Your task to perform on an android device: Open the web browser Image 0: 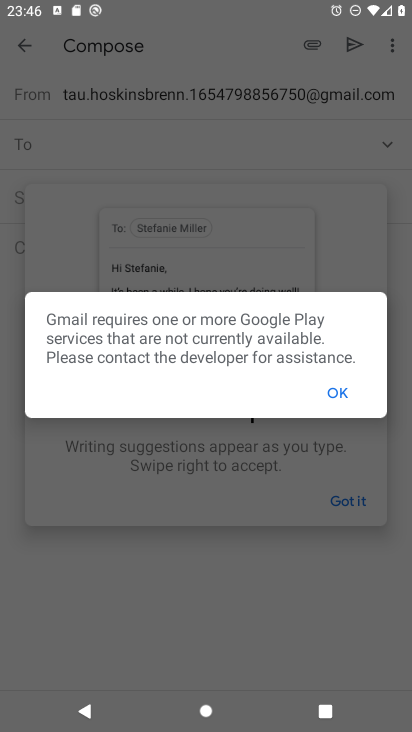
Step 0: press home button
Your task to perform on an android device: Open the web browser Image 1: 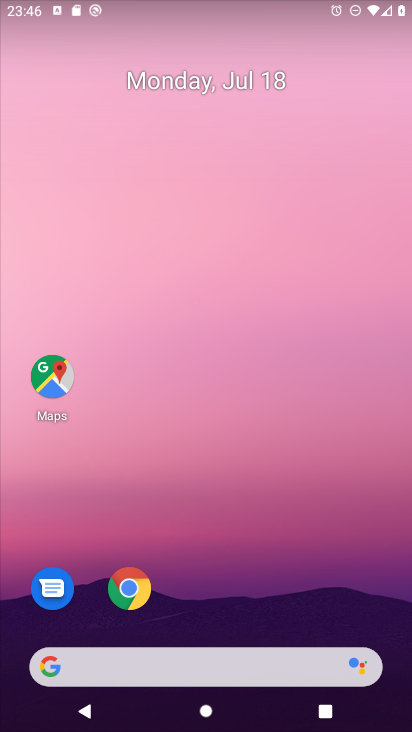
Step 1: click (129, 589)
Your task to perform on an android device: Open the web browser Image 2: 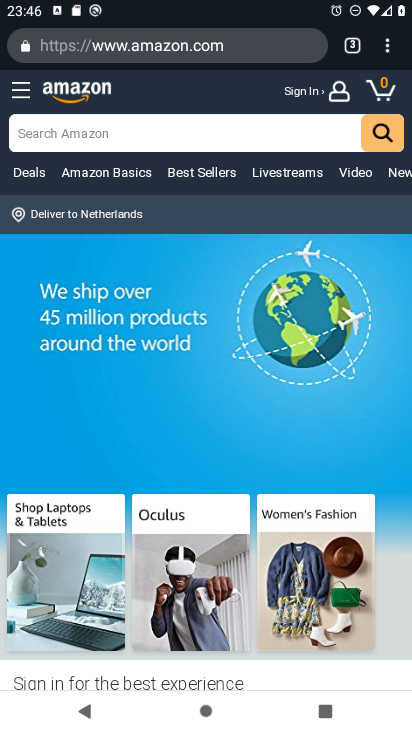
Step 2: task complete